Your task to perform on an android device: Open the phone app and click the voicemail tab. Image 0: 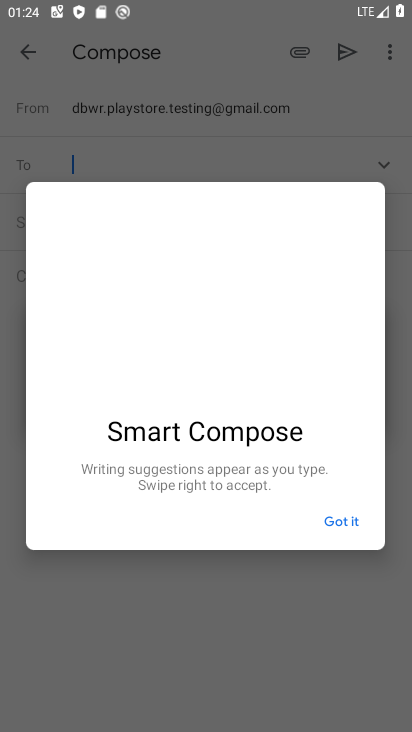
Step 0: press home button
Your task to perform on an android device: Open the phone app and click the voicemail tab. Image 1: 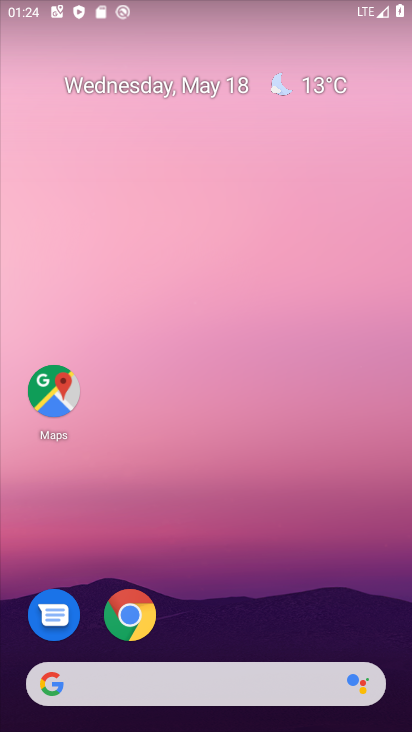
Step 1: drag from (121, 688) to (268, 226)
Your task to perform on an android device: Open the phone app and click the voicemail tab. Image 2: 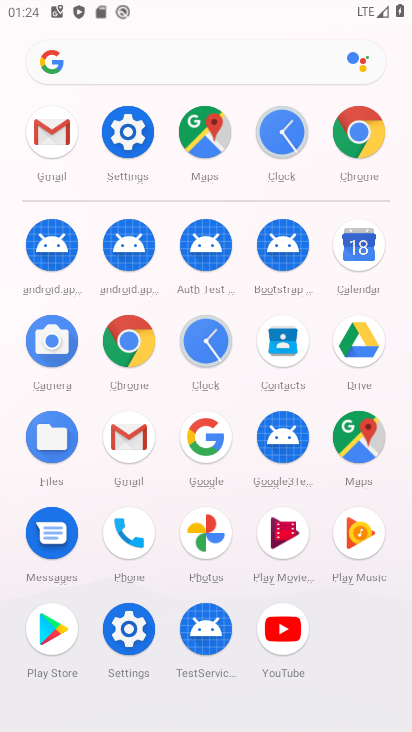
Step 2: click (138, 530)
Your task to perform on an android device: Open the phone app and click the voicemail tab. Image 3: 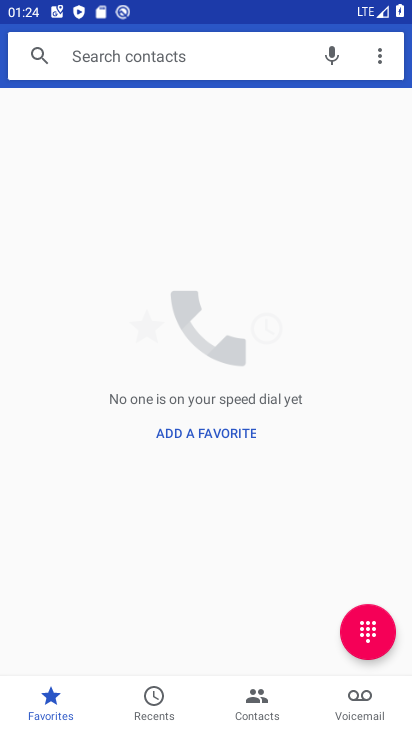
Step 3: click (362, 697)
Your task to perform on an android device: Open the phone app and click the voicemail tab. Image 4: 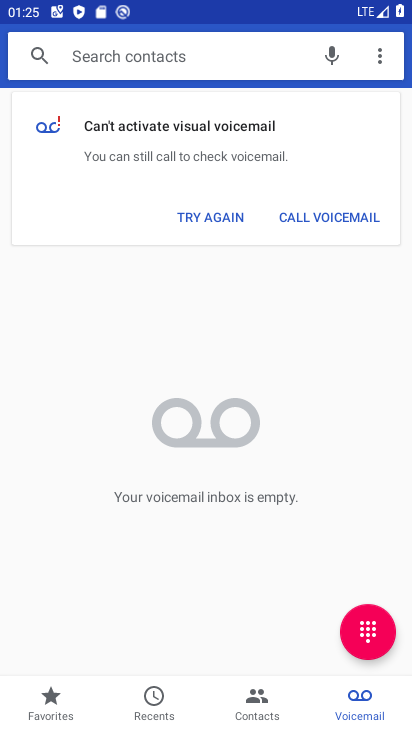
Step 4: task complete